Your task to perform on an android device: Open the Play Movies app and select the watchlist tab. Image 0: 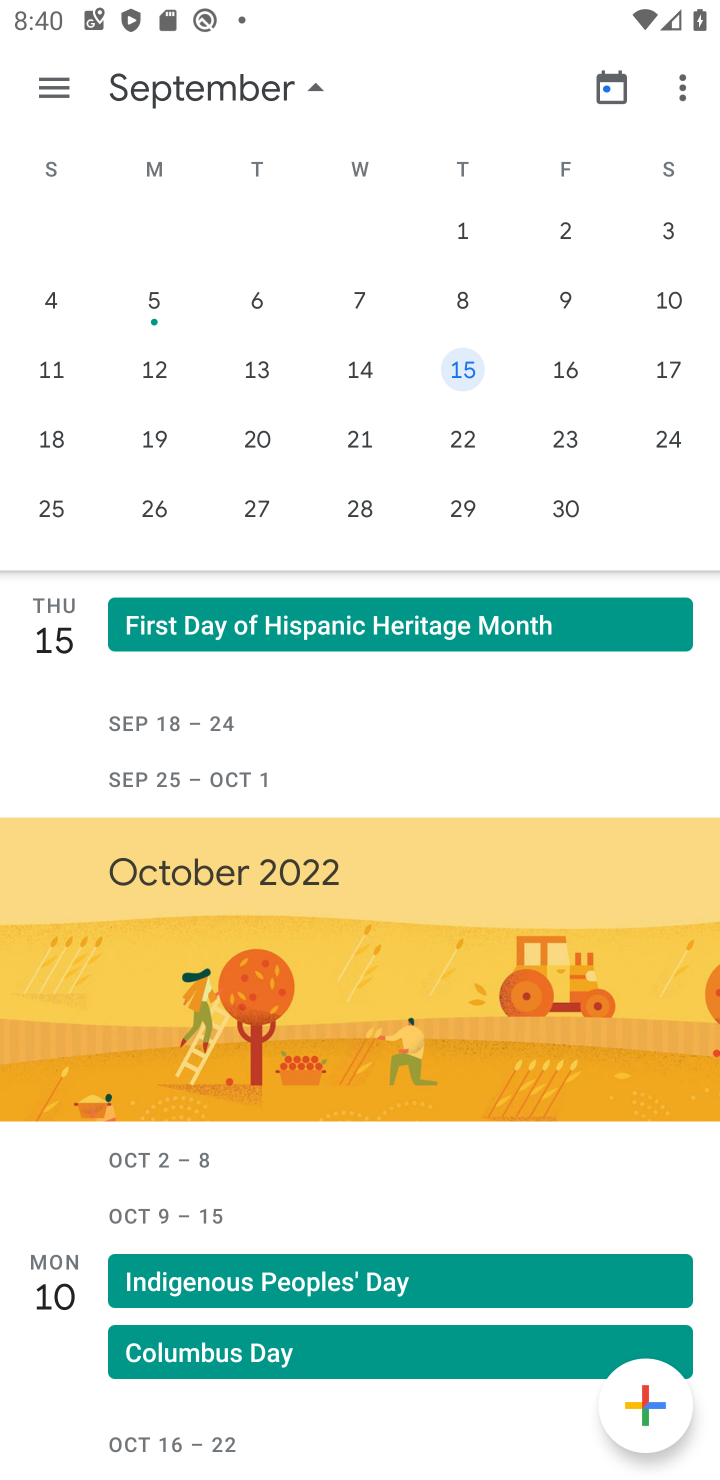
Step 0: press home button
Your task to perform on an android device: Open the Play Movies app and select the watchlist tab. Image 1: 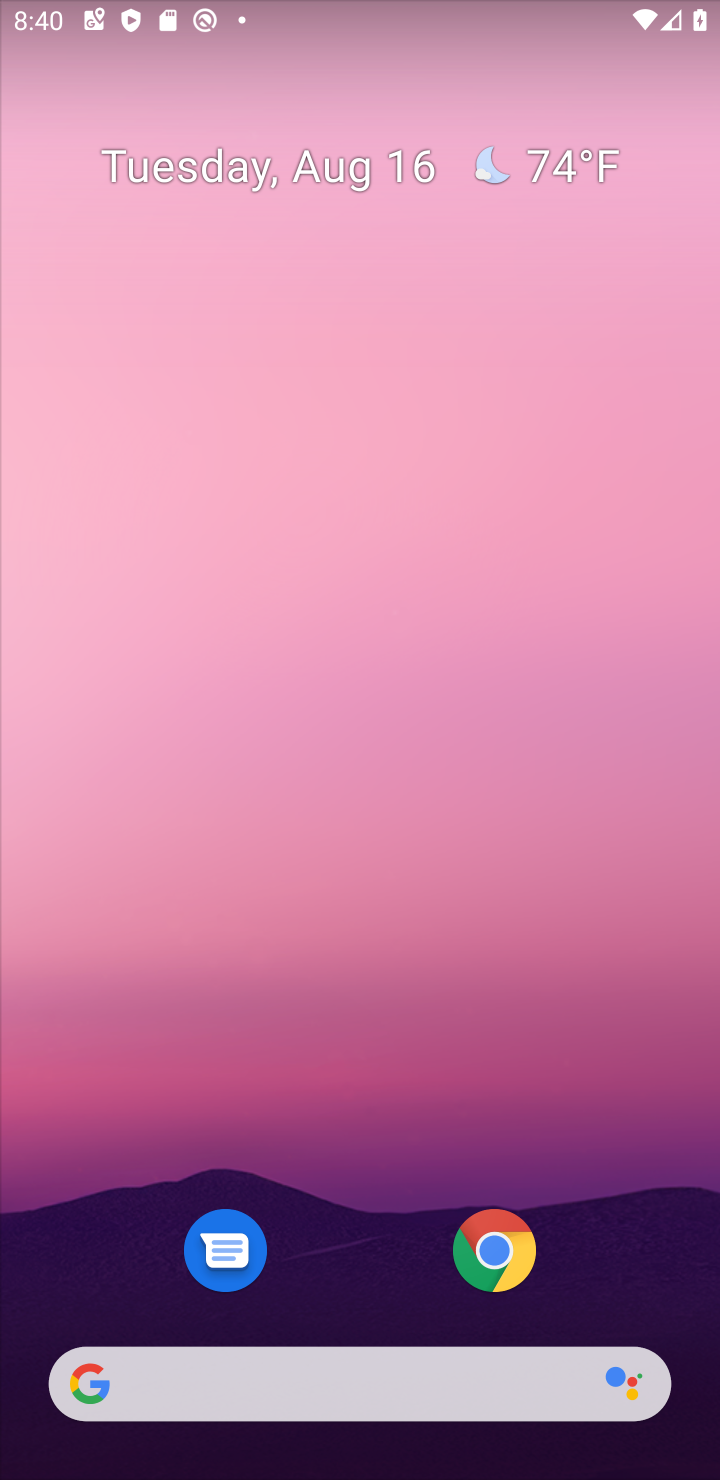
Step 1: drag from (358, 1300) to (417, 68)
Your task to perform on an android device: Open the Play Movies app and select the watchlist tab. Image 2: 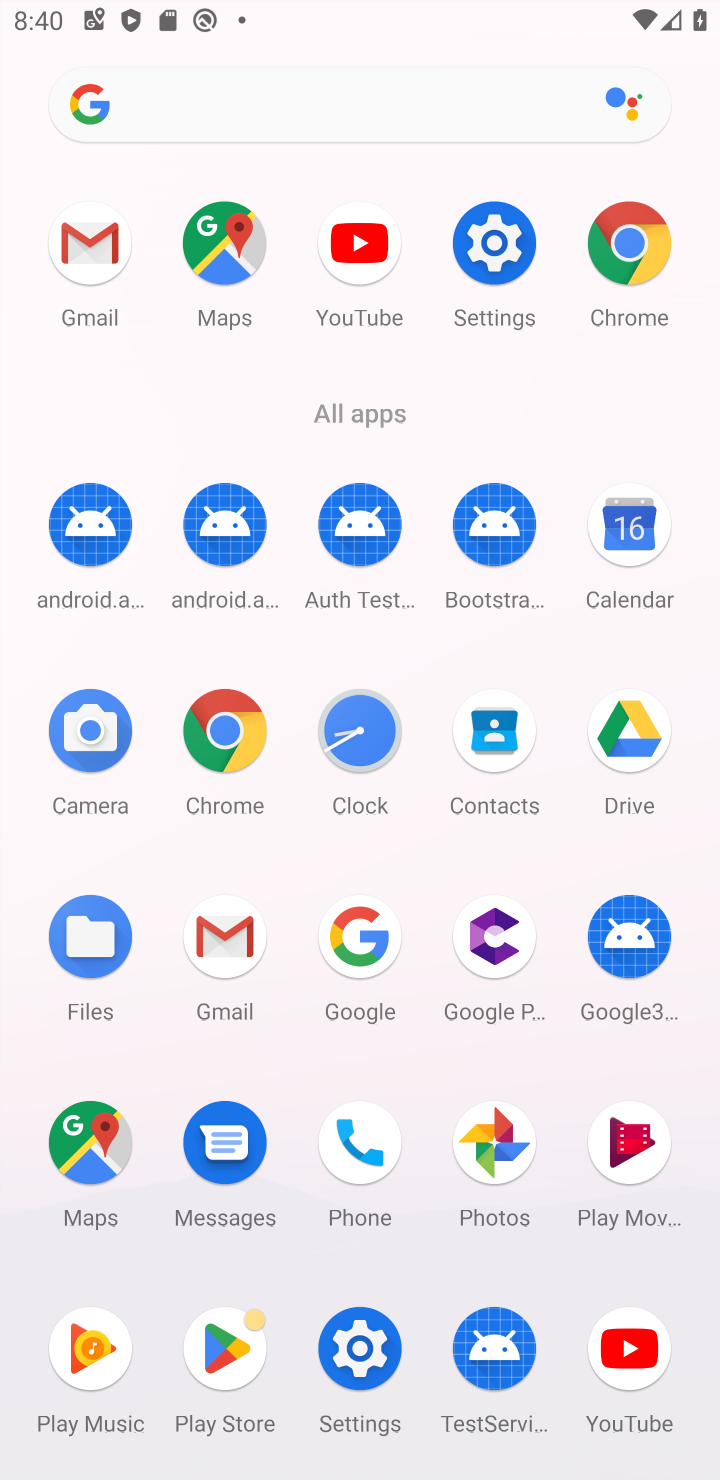
Step 2: click (638, 1153)
Your task to perform on an android device: Open the Play Movies app and select the watchlist tab. Image 3: 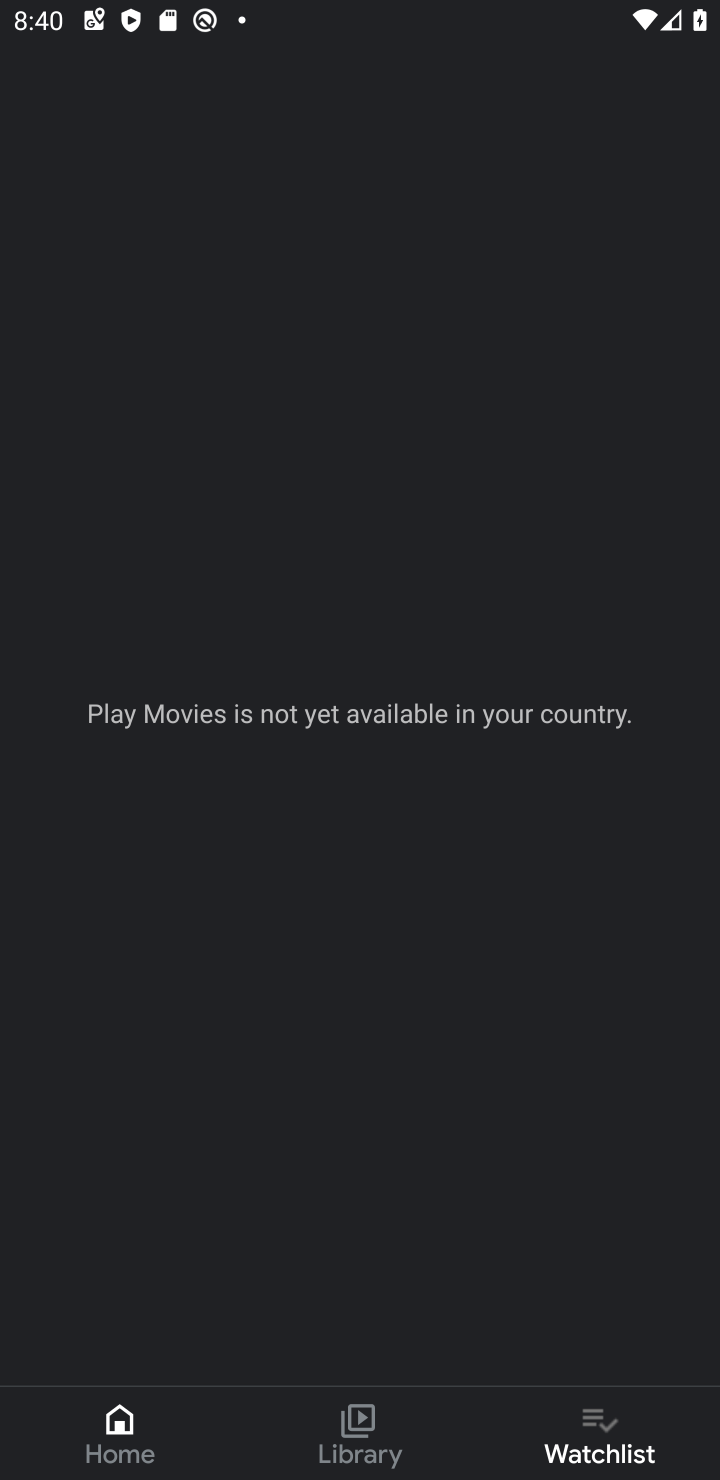
Step 3: click (567, 1439)
Your task to perform on an android device: Open the Play Movies app and select the watchlist tab. Image 4: 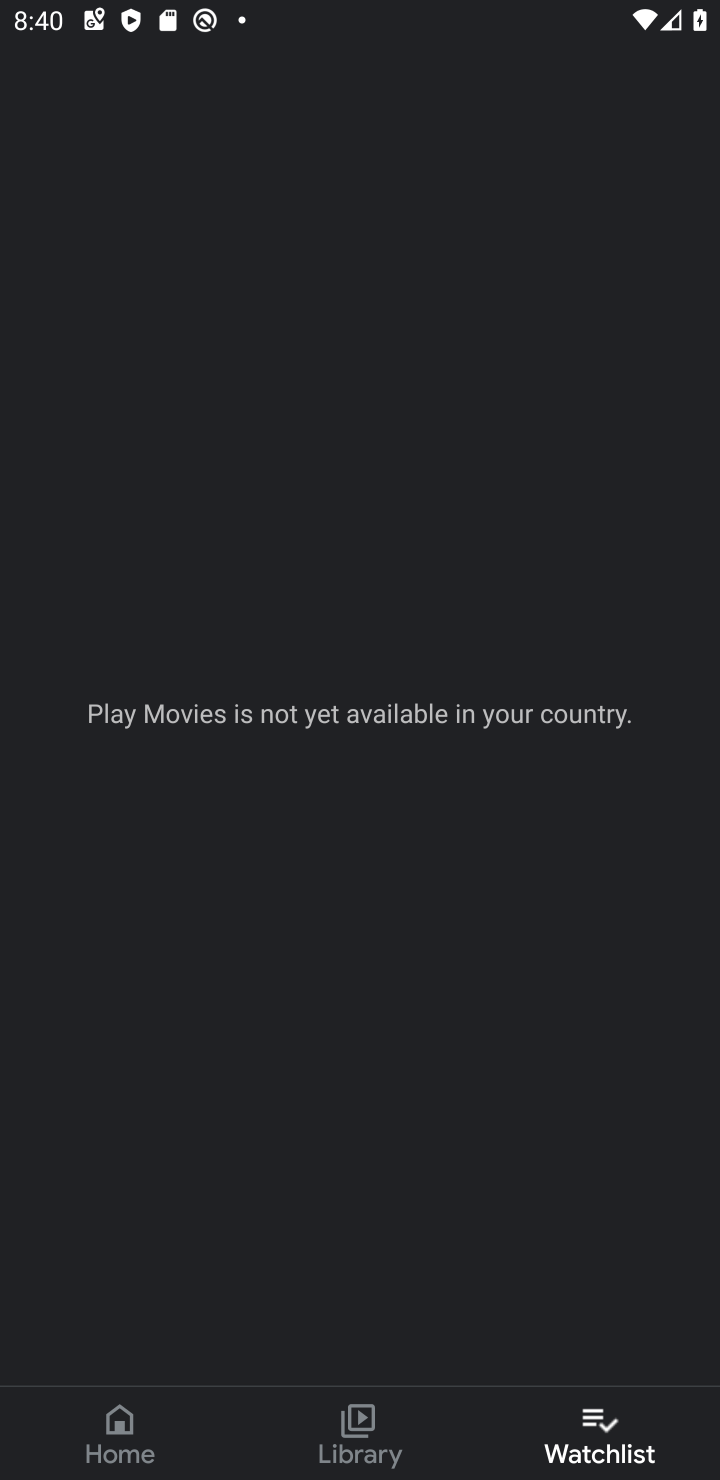
Step 4: task complete